Your task to perform on an android device: turn off improve location accuracy Image 0: 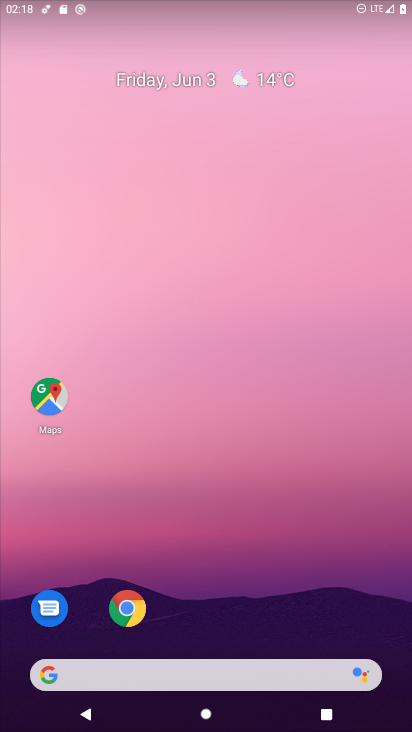
Step 0: drag from (321, 602) to (256, 154)
Your task to perform on an android device: turn off improve location accuracy Image 1: 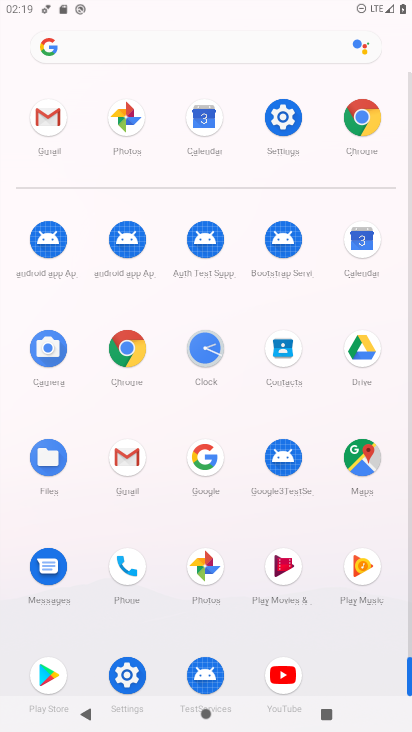
Step 1: click (281, 121)
Your task to perform on an android device: turn off improve location accuracy Image 2: 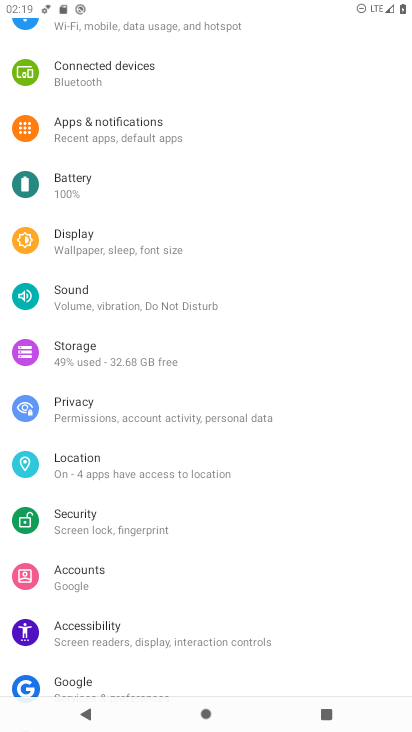
Step 2: click (96, 478)
Your task to perform on an android device: turn off improve location accuracy Image 3: 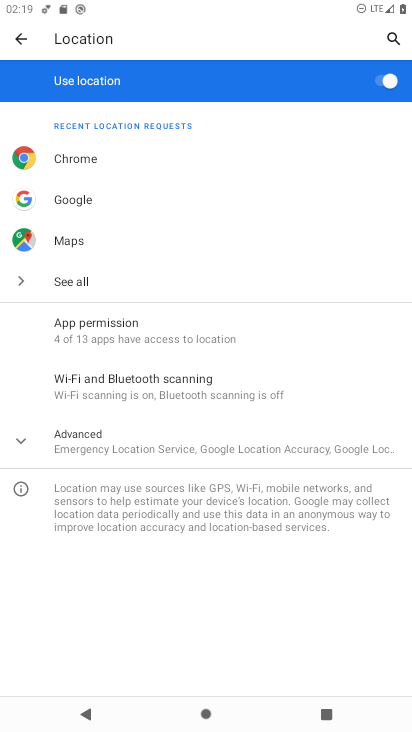
Step 3: click (96, 438)
Your task to perform on an android device: turn off improve location accuracy Image 4: 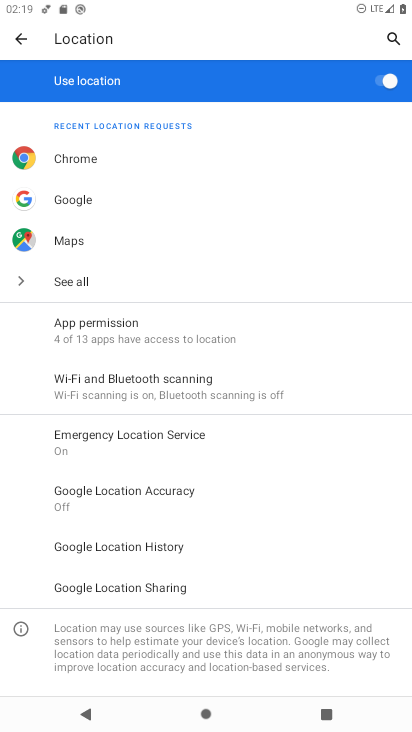
Step 4: click (150, 494)
Your task to perform on an android device: turn off improve location accuracy Image 5: 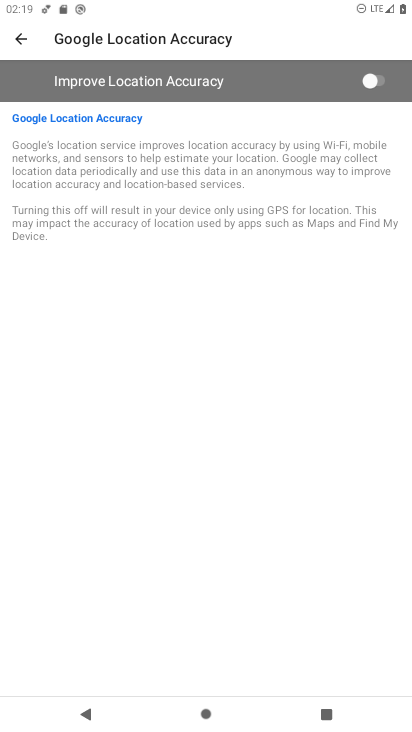
Step 5: task complete